Your task to perform on an android device: Do I have any events this weekend? Image 0: 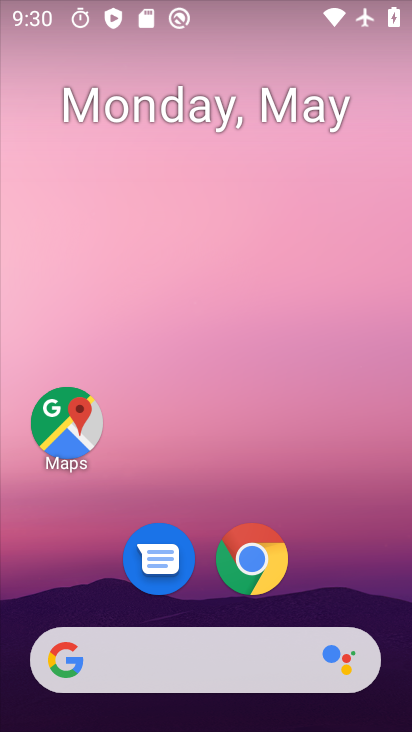
Step 0: drag from (322, 595) to (259, 10)
Your task to perform on an android device: Do I have any events this weekend? Image 1: 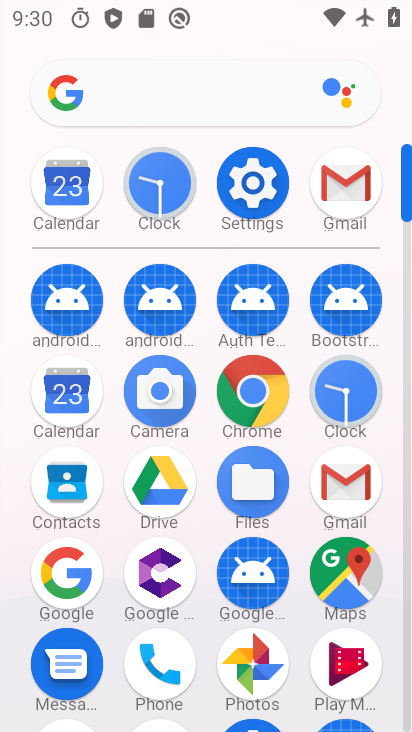
Step 1: click (70, 405)
Your task to perform on an android device: Do I have any events this weekend? Image 2: 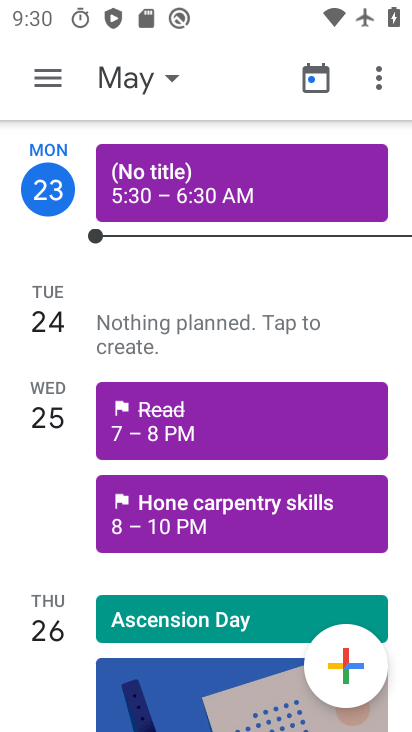
Step 2: click (155, 82)
Your task to perform on an android device: Do I have any events this weekend? Image 3: 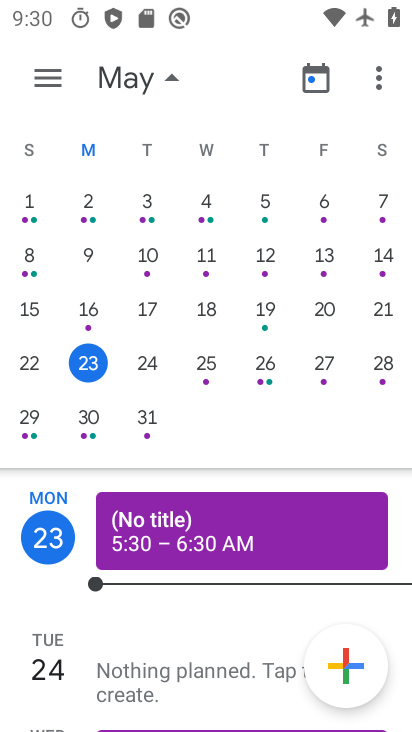
Step 3: click (384, 372)
Your task to perform on an android device: Do I have any events this weekend? Image 4: 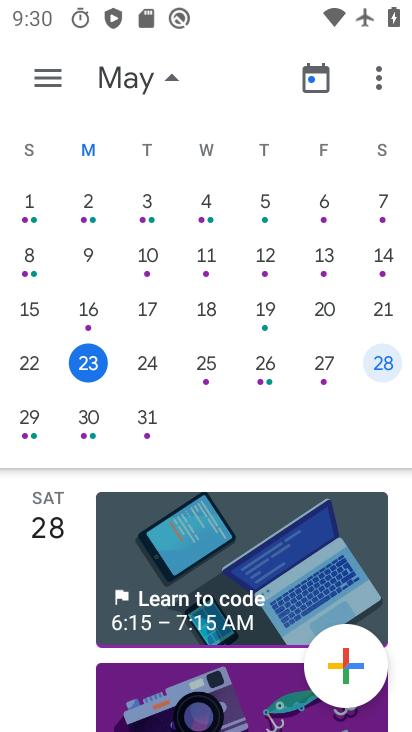
Step 4: task complete